Your task to perform on an android device: check out phone information Image 0: 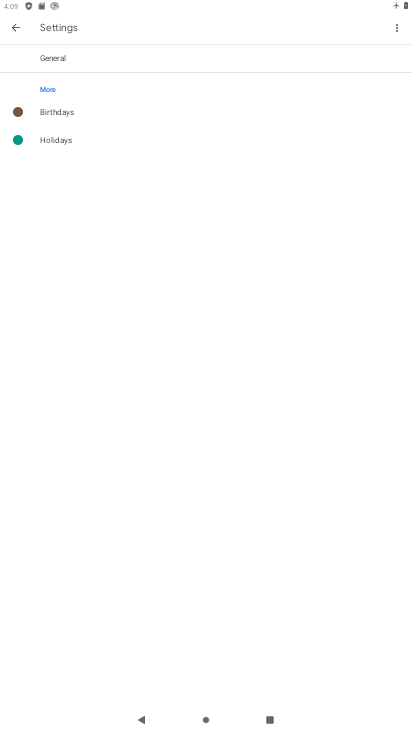
Step 0: press home button
Your task to perform on an android device: check out phone information Image 1: 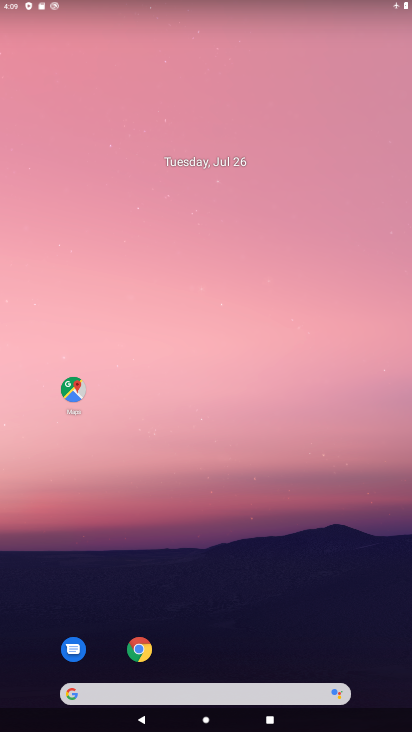
Step 1: drag from (258, 595) to (258, 137)
Your task to perform on an android device: check out phone information Image 2: 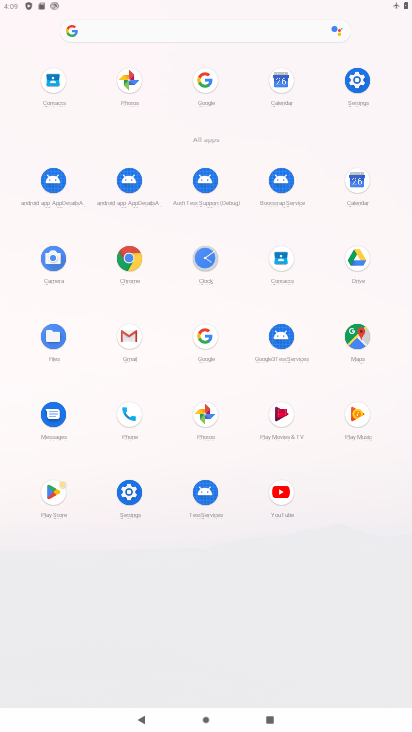
Step 2: click (343, 85)
Your task to perform on an android device: check out phone information Image 3: 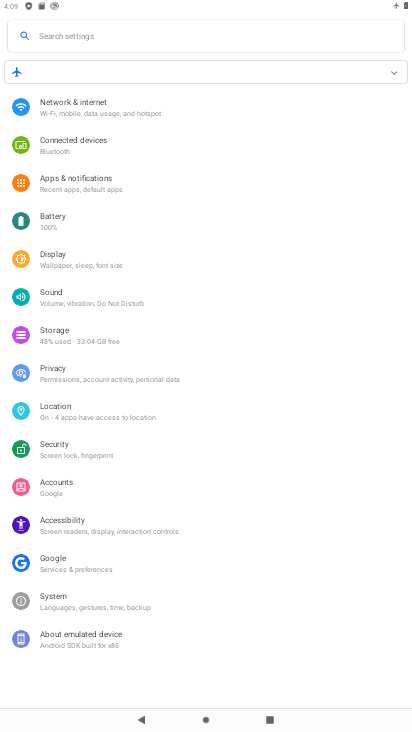
Step 3: drag from (149, 611) to (195, 68)
Your task to perform on an android device: check out phone information Image 4: 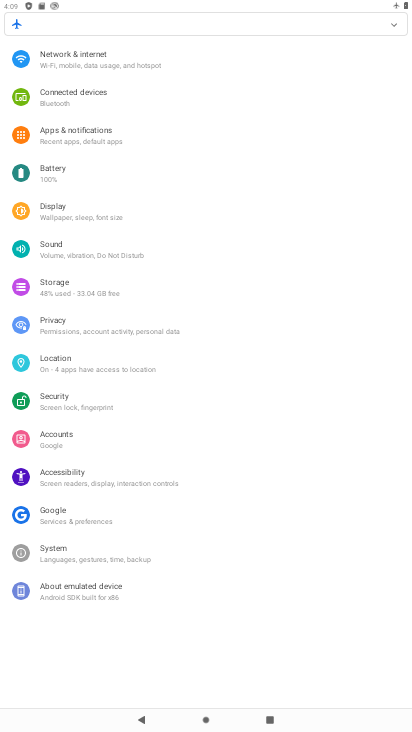
Step 4: click (104, 604)
Your task to perform on an android device: check out phone information Image 5: 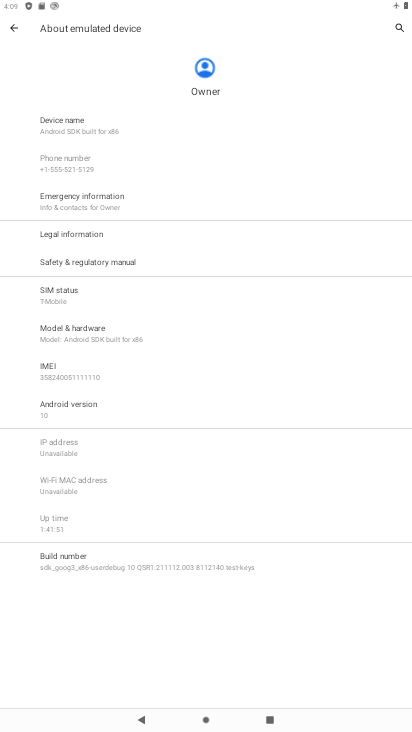
Step 5: task complete